Your task to perform on an android device: What's on the menu at Subway? Image 0: 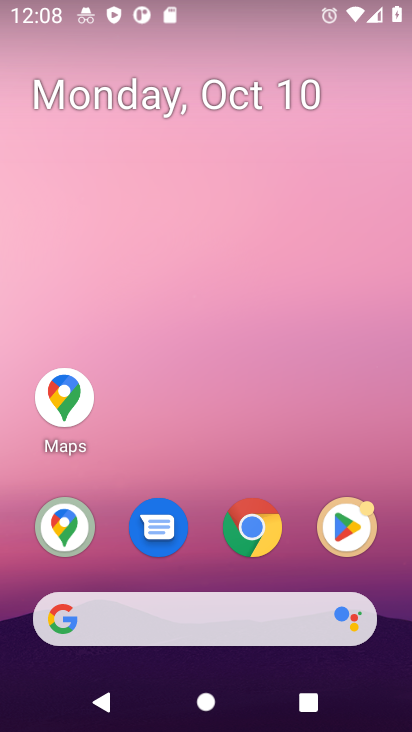
Step 0: click (262, 542)
Your task to perform on an android device: What's on the menu at Subway? Image 1: 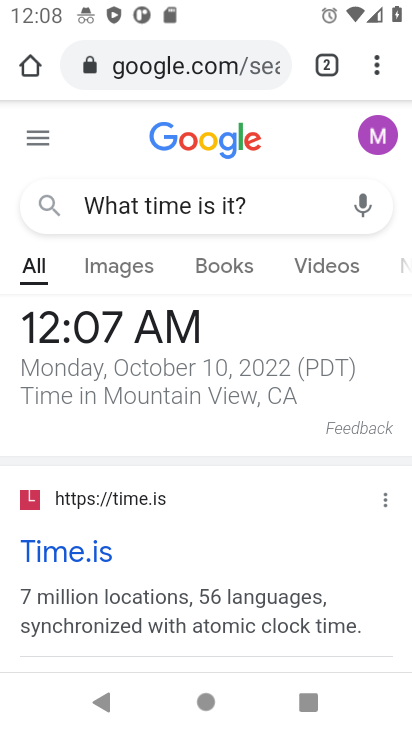
Step 1: click (131, 65)
Your task to perform on an android device: What's on the menu at Subway? Image 2: 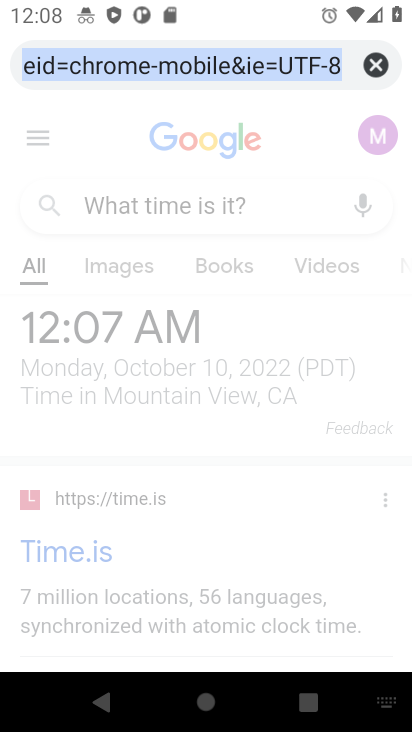
Step 2: type "What's on the menu at Subway?"
Your task to perform on an android device: What's on the menu at Subway? Image 3: 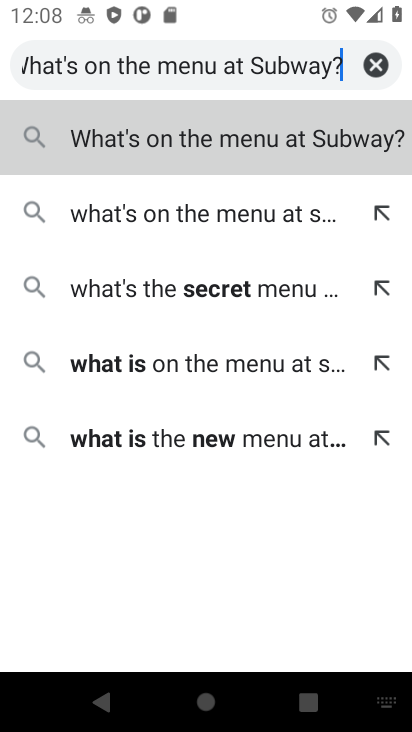
Step 3: click (207, 147)
Your task to perform on an android device: What's on the menu at Subway? Image 4: 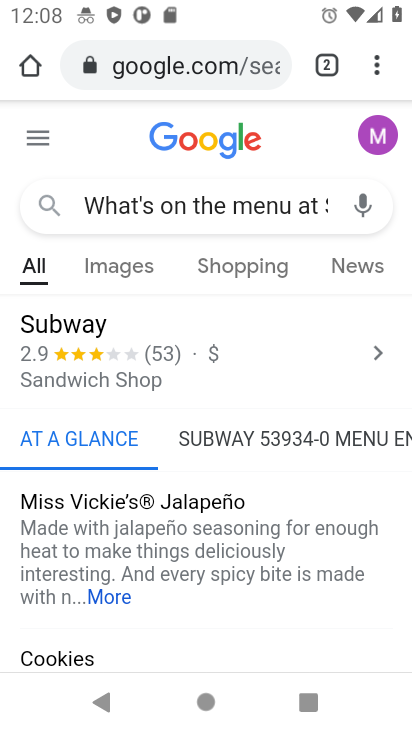
Step 4: task complete